Your task to perform on an android device: choose inbox layout in the gmail app Image 0: 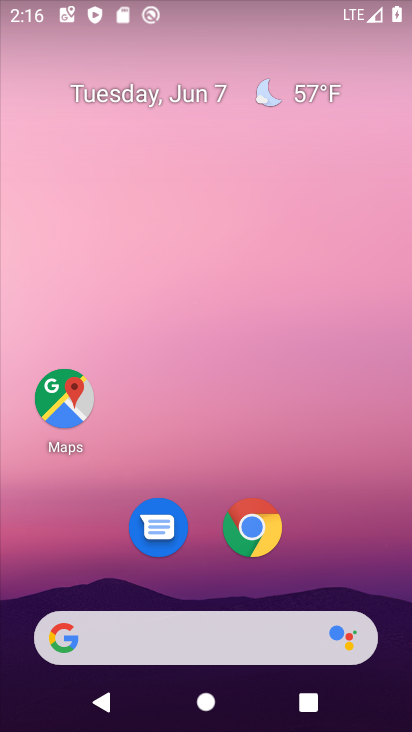
Step 0: click (406, 526)
Your task to perform on an android device: choose inbox layout in the gmail app Image 1: 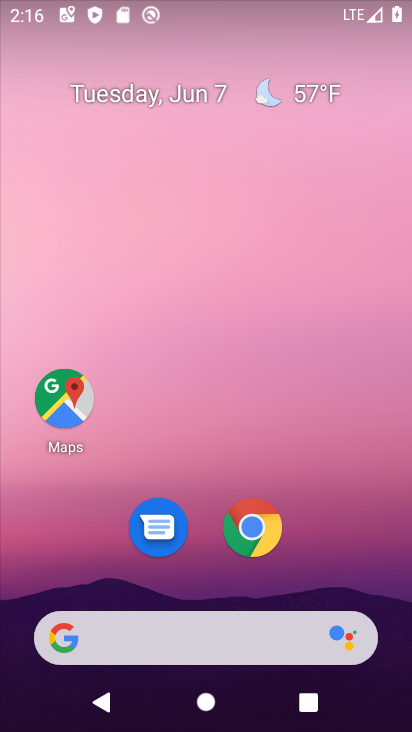
Step 1: drag from (378, 540) to (245, 152)
Your task to perform on an android device: choose inbox layout in the gmail app Image 2: 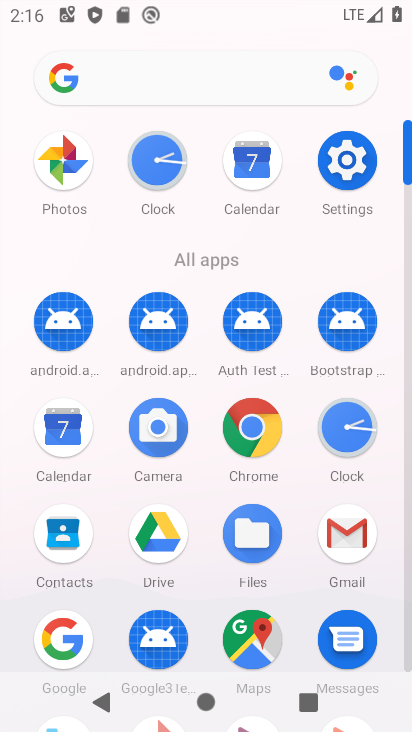
Step 2: click (341, 542)
Your task to perform on an android device: choose inbox layout in the gmail app Image 3: 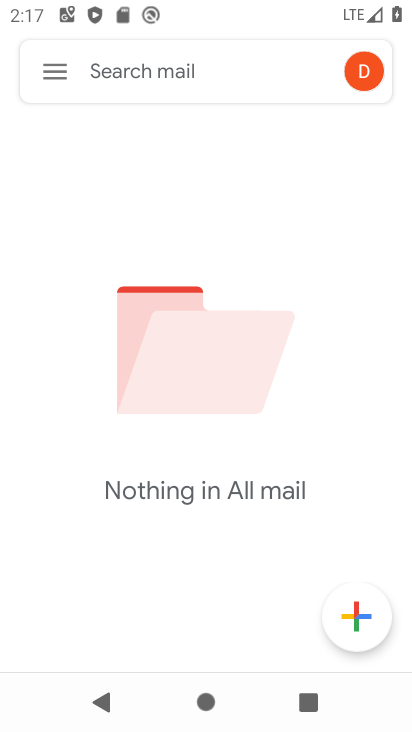
Step 3: click (69, 73)
Your task to perform on an android device: choose inbox layout in the gmail app Image 4: 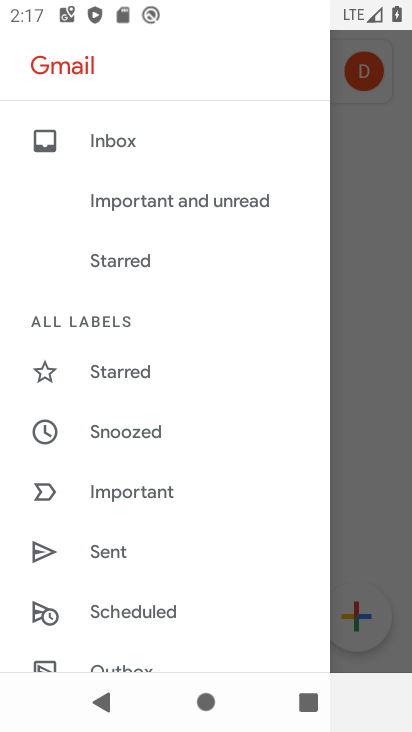
Step 4: drag from (180, 643) to (125, 216)
Your task to perform on an android device: choose inbox layout in the gmail app Image 5: 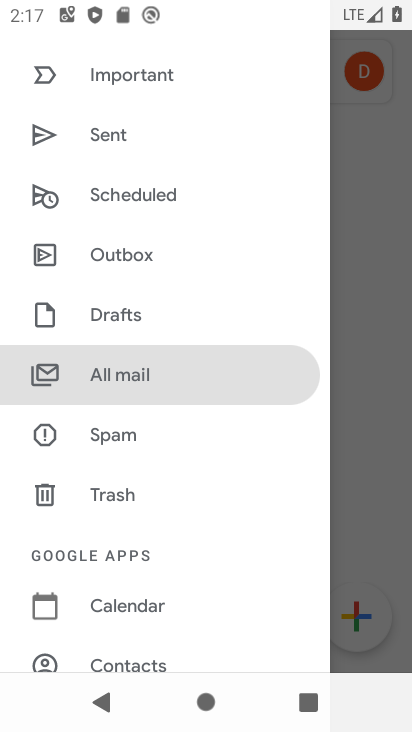
Step 5: drag from (151, 673) to (118, 354)
Your task to perform on an android device: choose inbox layout in the gmail app Image 6: 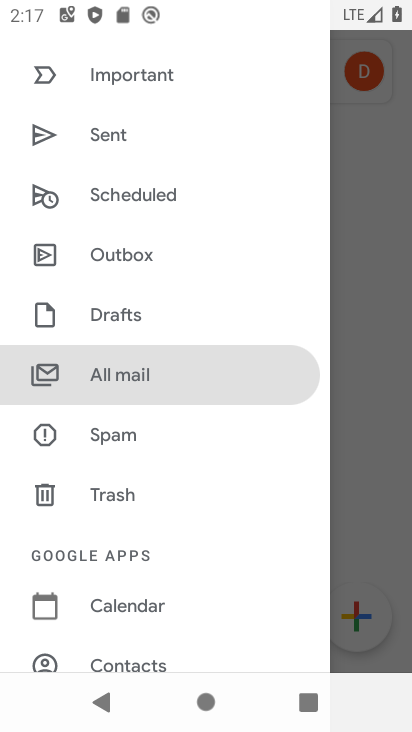
Step 6: drag from (138, 616) to (100, 184)
Your task to perform on an android device: choose inbox layout in the gmail app Image 7: 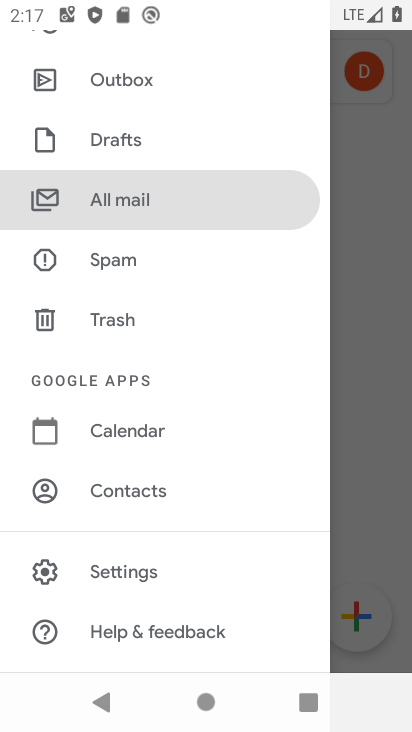
Step 7: click (147, 561)
Your task to perform on an android device: choose inbox layout in the gmail app Image 8: 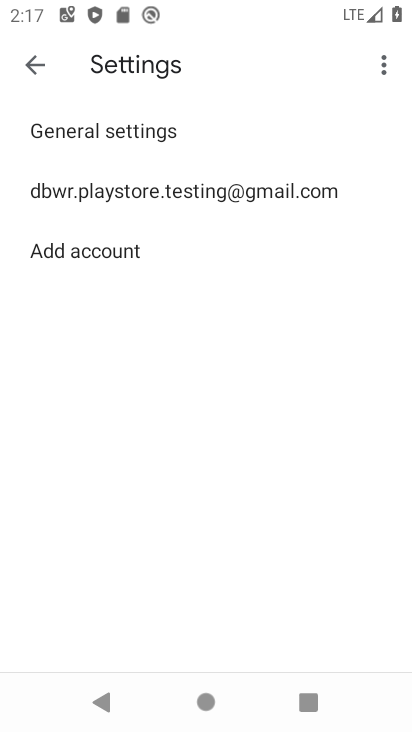
Step 8: click (215, 194)
Your task to perform on an android device: choose inbox layout in the gmail app Image 9: 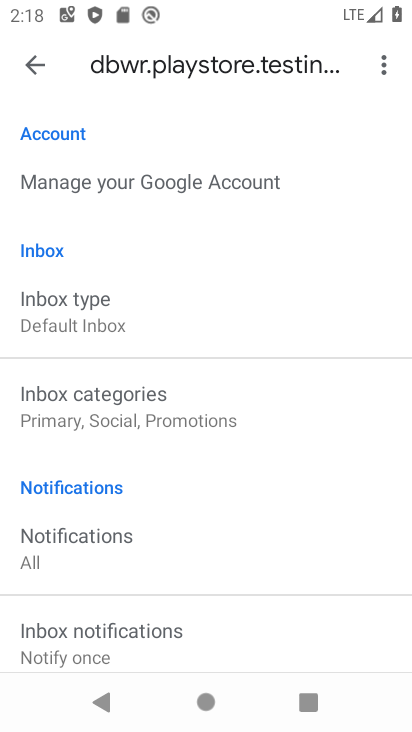
Step 9: click (214, 313)
Your task to perform on an android device: choose inbox layout in the gmail app Image 10: 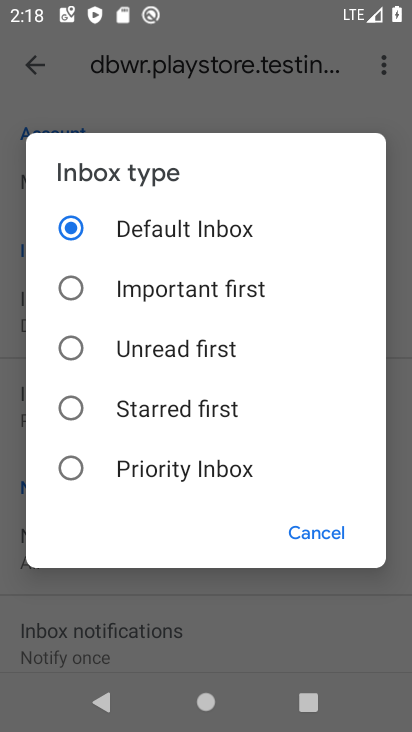
Step 10: click (232, 353)
Your task to perform on an android device: choose inbox layout in the gmail app Image 11: 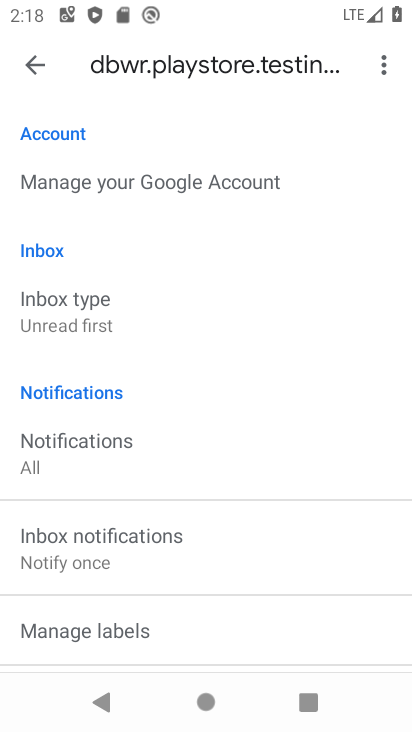
Step 11: task complete